Your task to perform on an android device: Open calendar and show me the second week of next month Image 0: 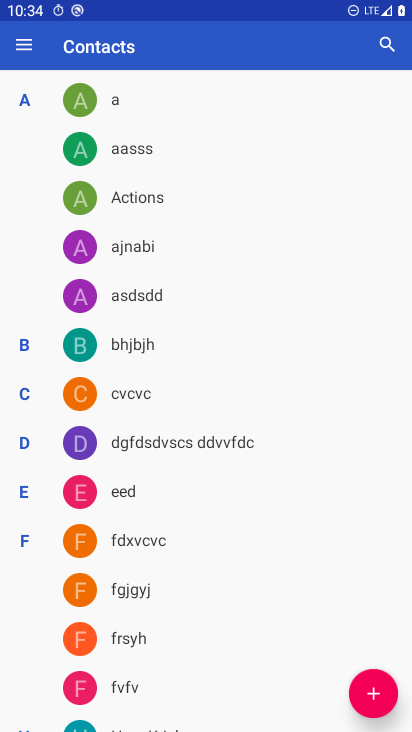
Step 0: press home button
Your task to perform on an android device: Open calendar and show me the second week of next month Image 1: 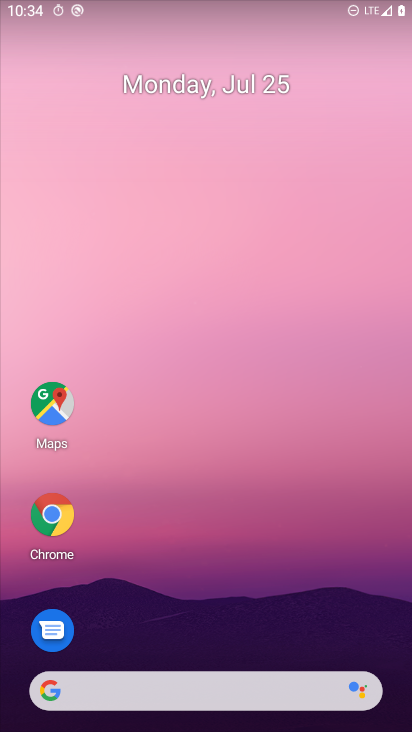
Step 1: drag from (115, 406) to (155, 234)
Your task to perform on an android device: Open calendar and show me the second week of next month Image 2: 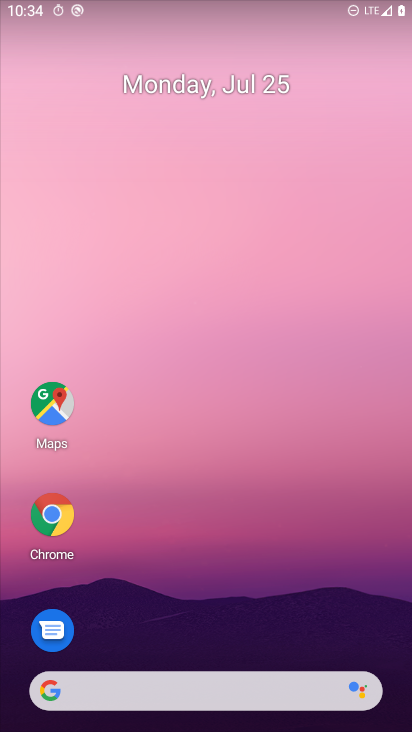
Step 2: drag from (39, 698) to (316, 126)
Your task to perform on an android device: Open calendar and show me the second week of next month Image 3: 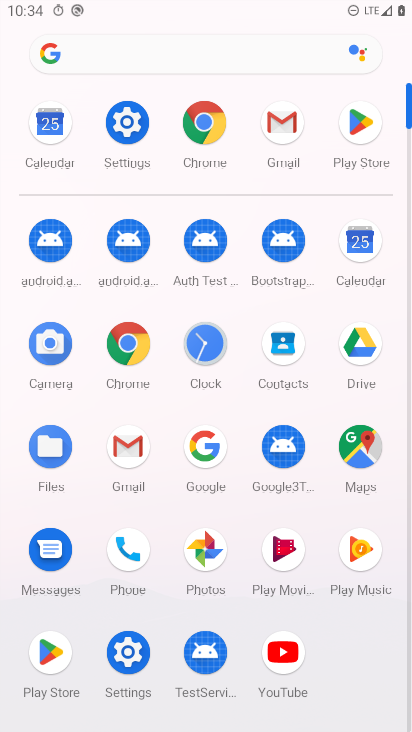
Step 3: drag from (225, 339) to (262, 248)
Your task to perform on an android device: Open calendar and show me the second week of next month Image 4: 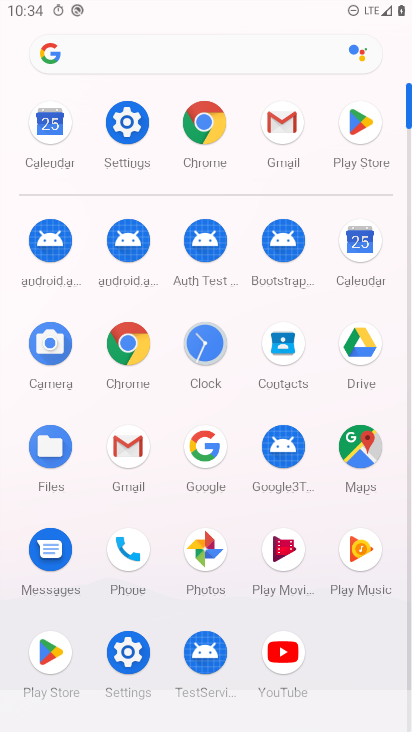
Step 4: click (348, 257)
Your task to perform on an android device: Open calendar and show me the second week of next month Image 5: 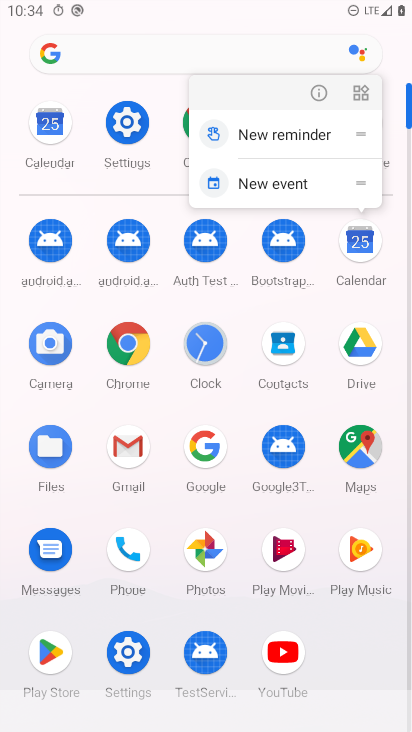
Step 5: click (349, 242)
Your task to perform on an android device: Open calendar and show me the second week of next month Image 6: 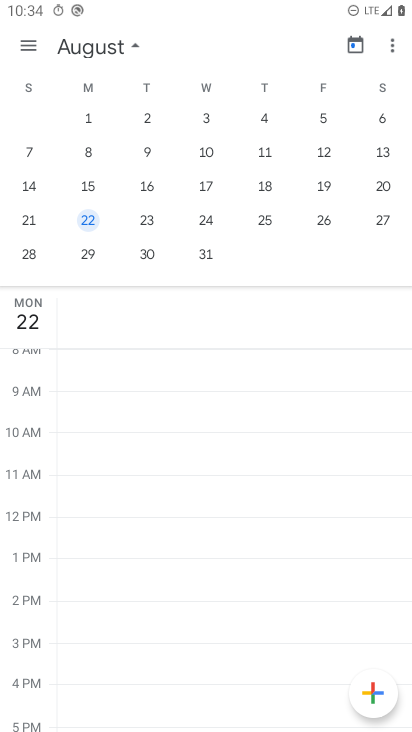
Step 6: click (90, 147)
Your task to perform on an android device: Open calendar and show me the second week of next month Image 7: 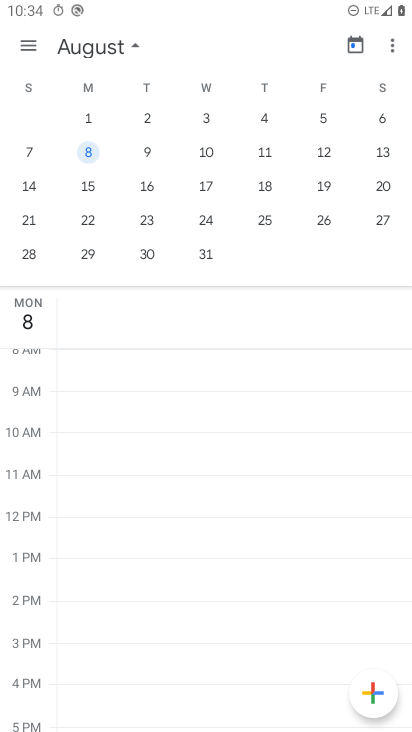
Step 7: task complete